Your task to perform on an android device: Is it going to rain today? Image 0: 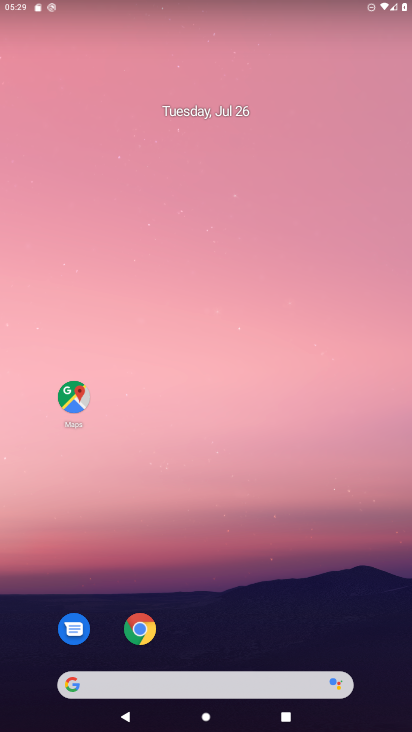
Step 0: click (185, 687)
Your task to perform on an android device: Is it going to rain today? Image 1: 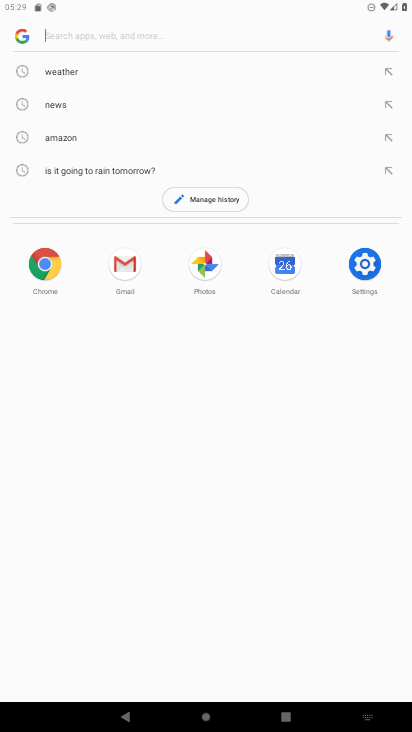
Step 1: click (57, 74)
Your task to perform on an android device: Is it going to rain today? Image 2: 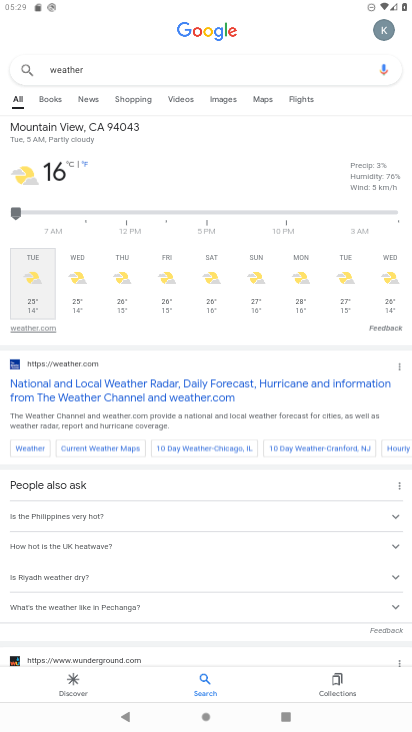
Step 2: task complete